Your task to perform on an android device: turn on translation in the chrome app Image 0: 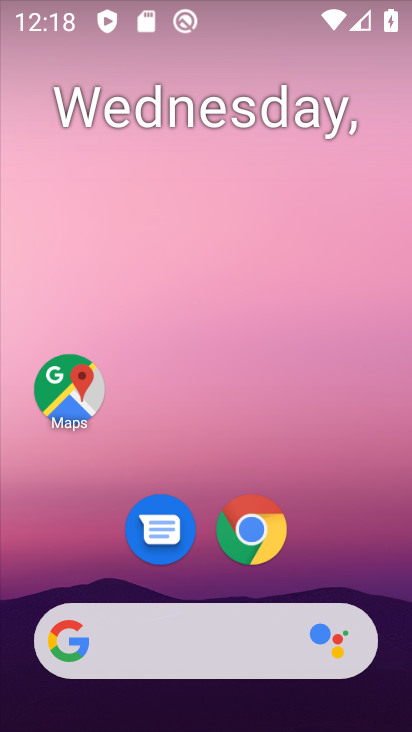
Step 0: click (256, 528)
Your task to perform on an android device: turn on translation in the chrome app Image 1: 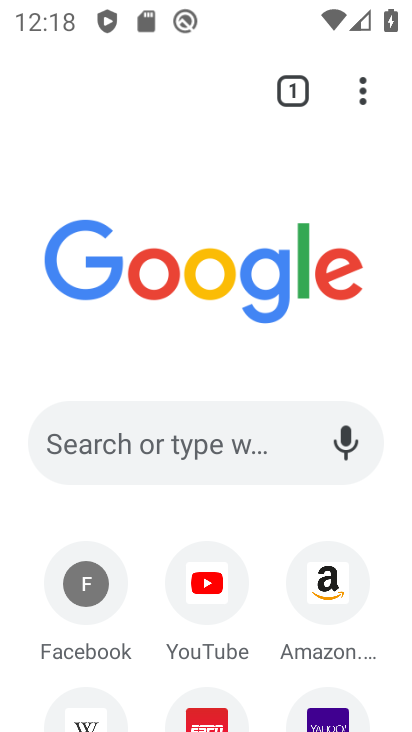
Step 1: click (360, 103)
Your task to perform on an android device: turn on translation in the chrome app Image 2: 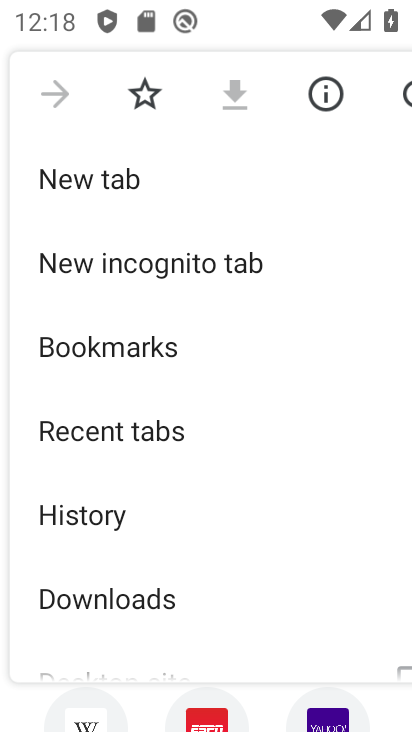
Step 2: drag from (247, 607) to (257, 291)
Your task to perform on an android device: turn on translation in the chrome app Image 3: 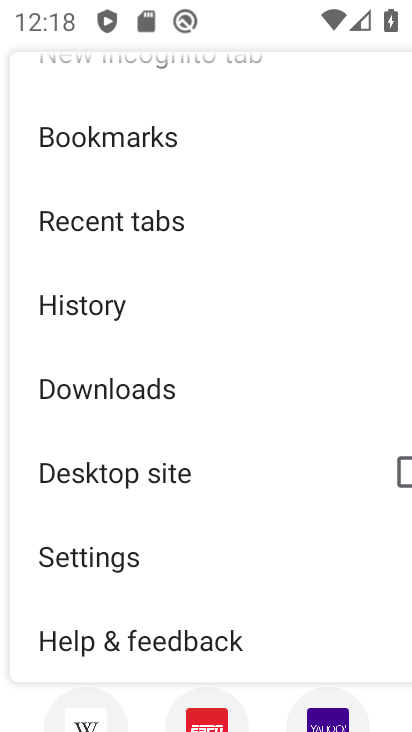
Step 3: click (88, 545)
Your task to perform on an android device: turn on translation in the chrome app Image 4: 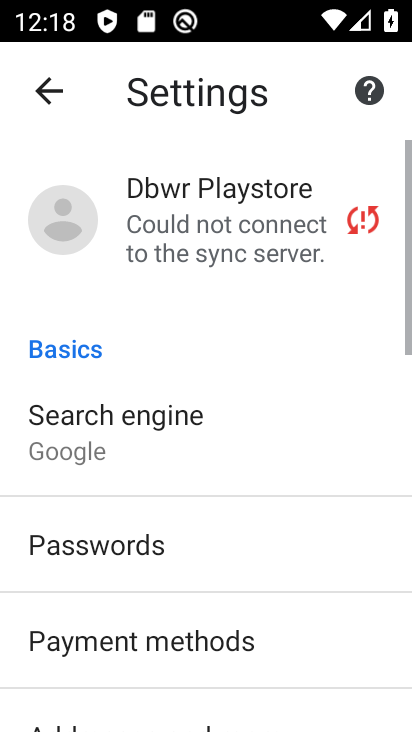
Step 4: drag from (312, 653) to (244, 45)
Your task to perform on an android device: turn on translation in the chrome app Image 5: 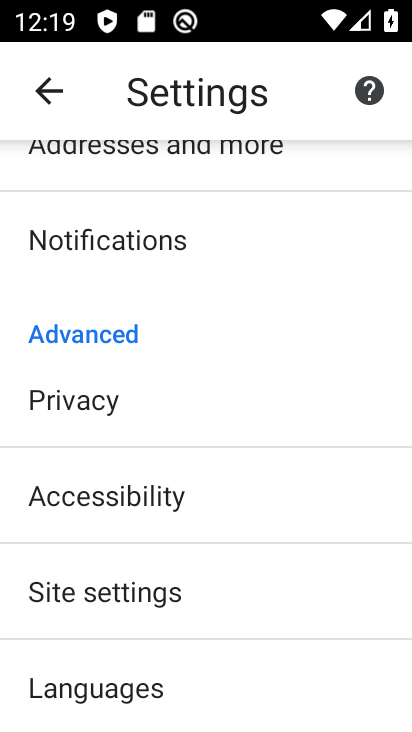
Step 5: drag from (199, 685) to (204, 351)
Your task to perform on an android device: turn on translation in the chrome app Image 6: 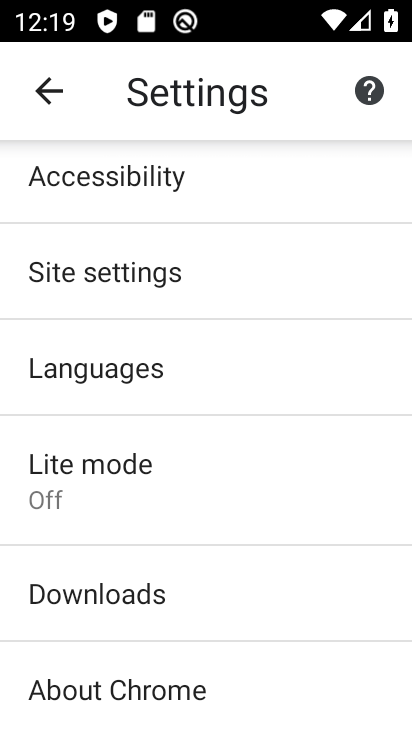
Step 6: click (38, 397)
Your task to perform on an android device: turn on translation in the chrome app Image 7: 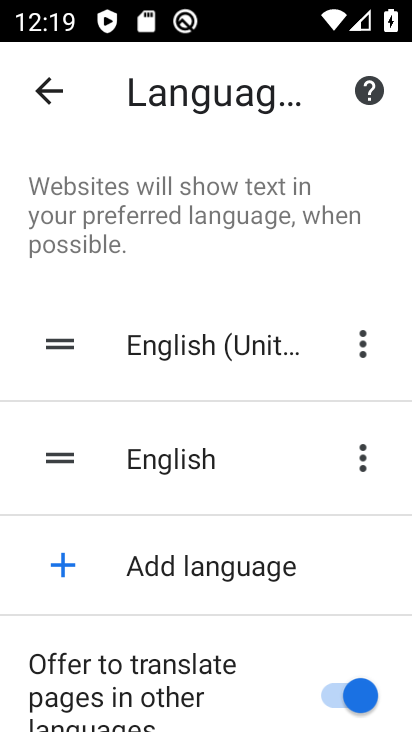
Step 7: task complete